Your task to perform on an android device: remove spam from my inbox in the gmail app Image 0: 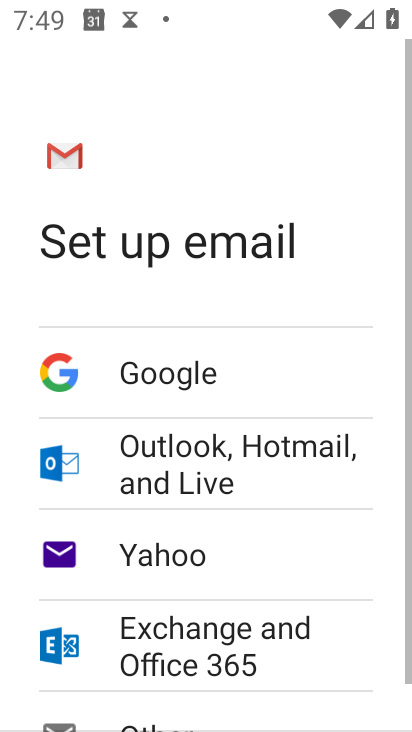
Step 0: press home button
Your task to perform on an android device: remove spam from my inbox in the gmail app Image 1: 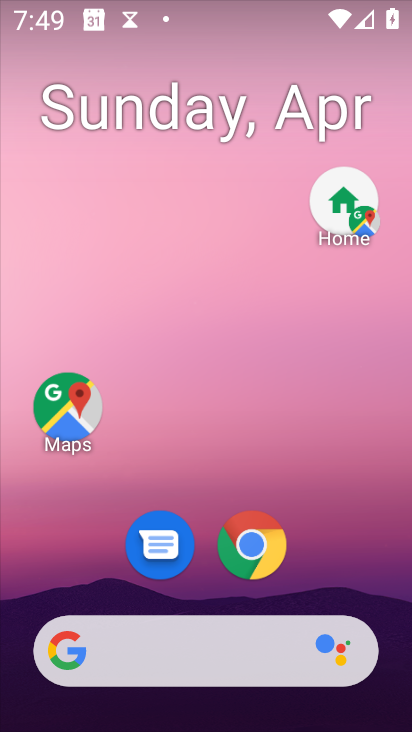
Step 1: drag from (342, 579) to (346, 147)
Your task to perform on an android device: remove spam from my inbox in the gmail app Image 2: 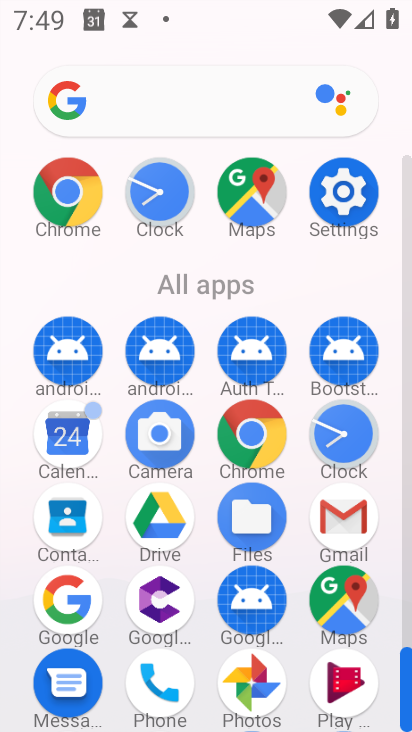
Step 2: click (356, 502)
Your task to perform on an android device: remove spam from my inbox in the gmail app Image 3: 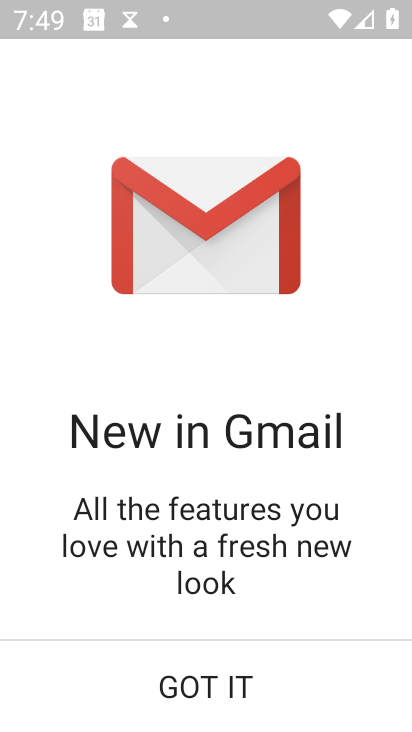
Step 3: click (260, 691)
Your task to perform on an android device: remove spam from my inbox in the gmail app Image 4: 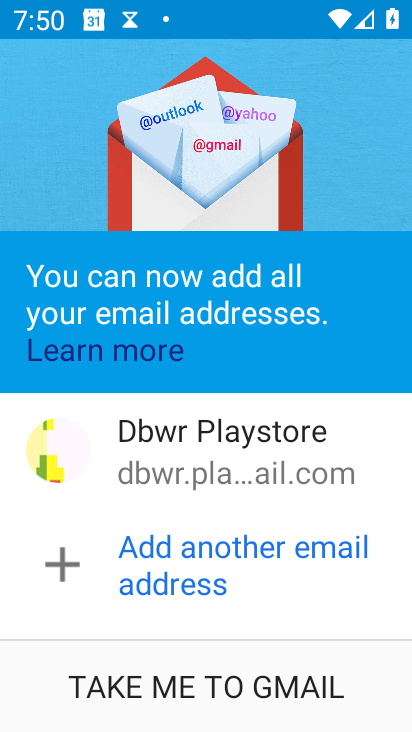
Step 4: click (253, 686)
Your task to perform on an android device: remove spam from my inbox in the gmail app Image 5: 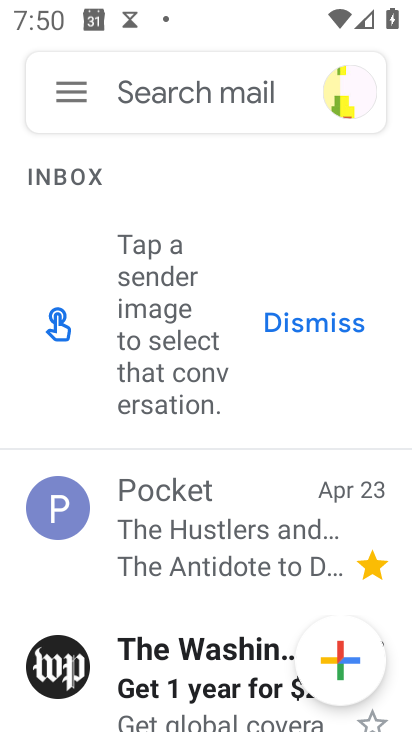
Step 5: click (63, 86)
Your task to perform on an android device: remove spam from my inbox in the gmail app Image 6: 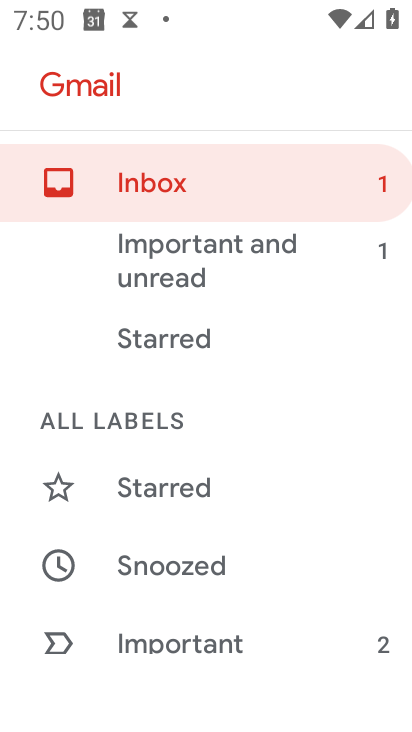
Step 6: drag from (168, 586) to (270, 193)
Your task to perform on an android device: remove spam from my inbox in the gmail app Image 7: 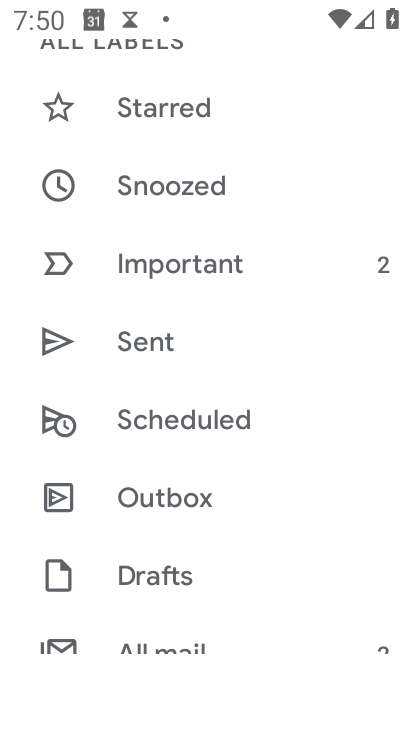
Step 7: drag from (251, 607) to (267, 224)
Your task to perform on an android device: remove spam from my inbox in the gmail app Image 8: 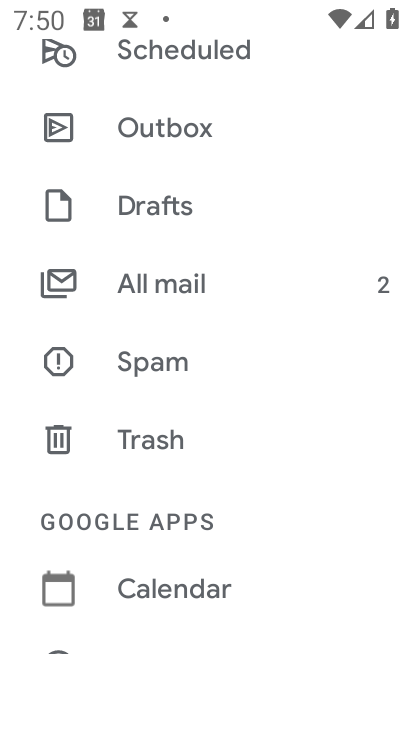
Step 8: click (163, 348)
Your task to perform on an android device: remove spam from my inbox in the gmail app Image 9: 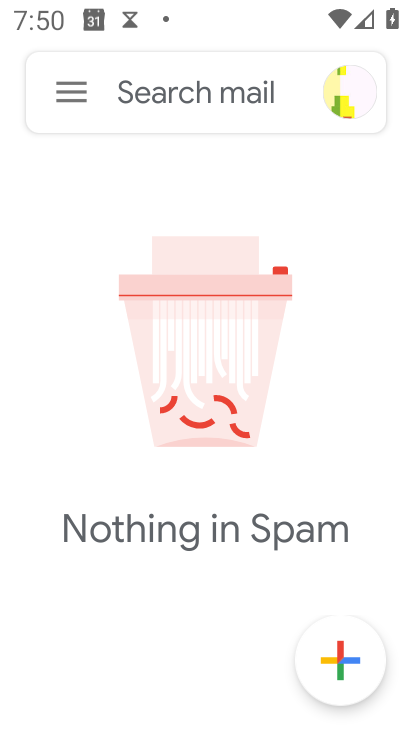
Step 9: task complete